Your task to perform on an android device: Open calendar and show me the third week of next month Image 0: 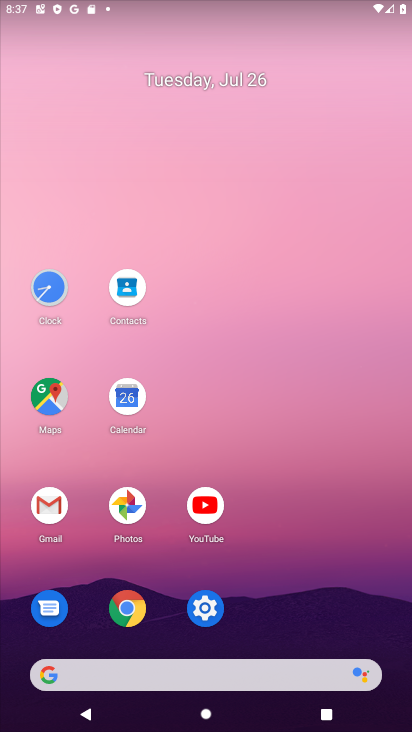
Step 0: click (125, 402)
Your task to perform on an android device: Open calendar and show me the third week of next month Image 1: 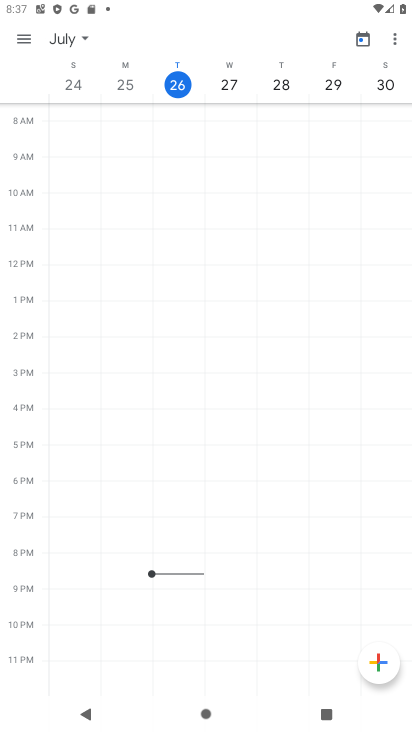
Step 1: click (81, 34)
Your task to perform on an android device: Open calendar and show me the third week of next month Image 2: 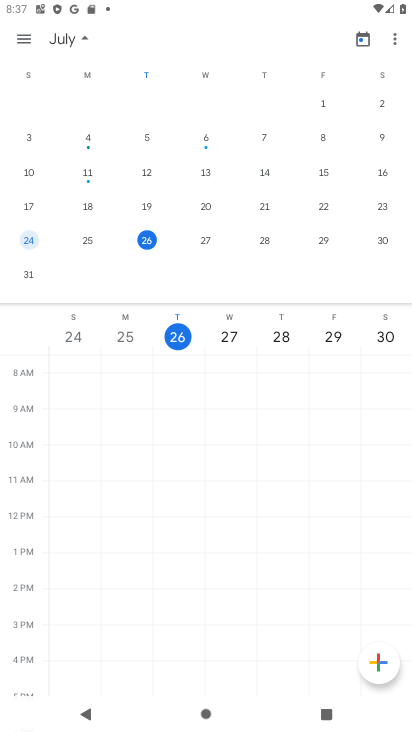
Step 2: drag from (340, 182) to (0, 197)
Your task to perform on an android device: Open calendar and show me the third week of next month Image 3: 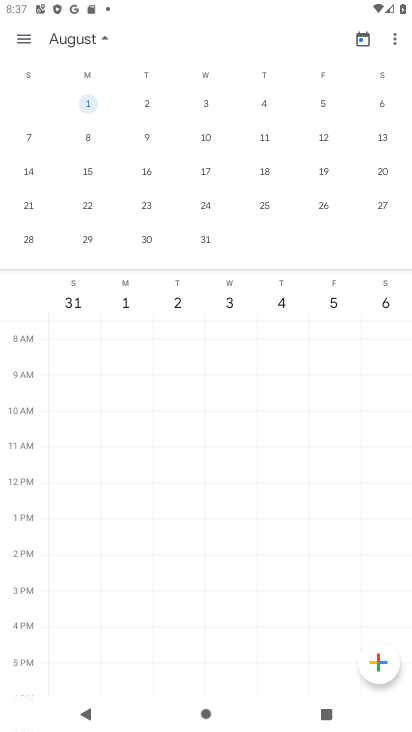
Step 3: click (82, 173)
Your task to perform on an android device: Open calendar and show me the third week of next month Image 4: 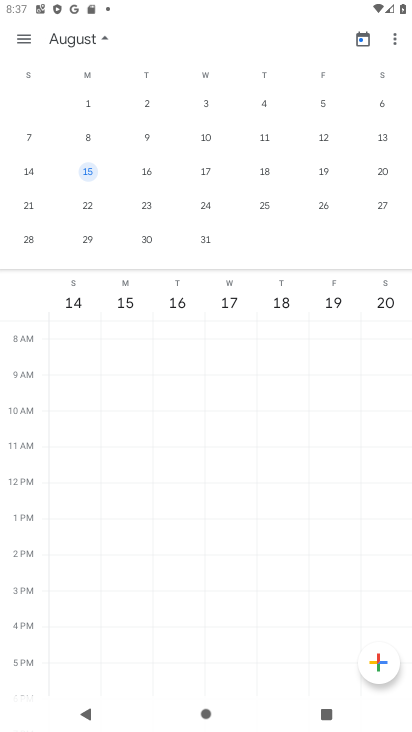
Step 4: task complete